Your task to perform on an android device: manage bookmarks in the chrome app Image 0: 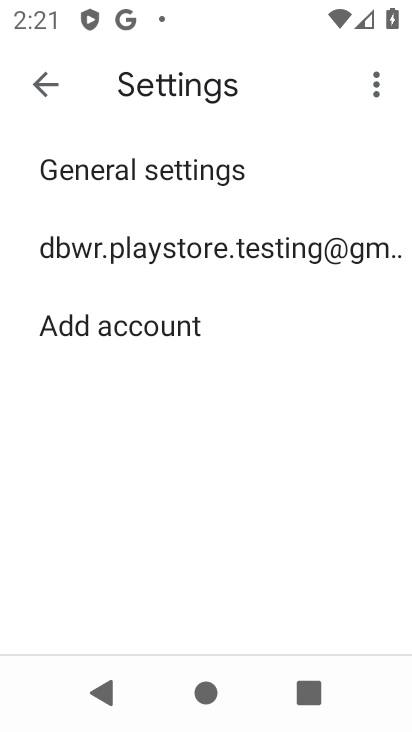
Step 0: press home button
Your task to perform on an android device: manage bookmarks in the chrome app Image 1: 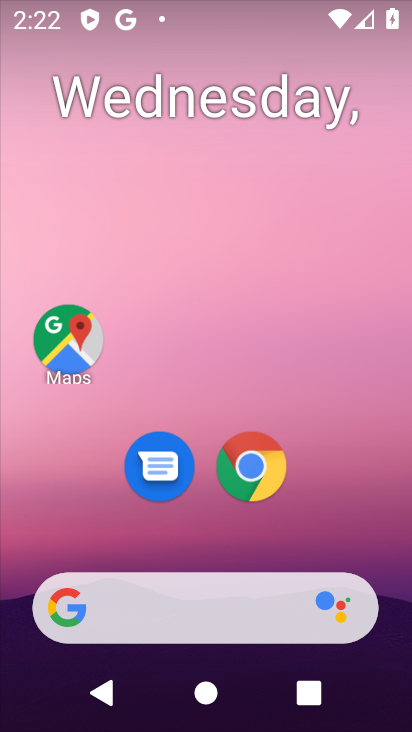
Step 1: drag from (396, 542) to (278, 100)
Your task to perform on an android device: manage bookmarks in the chrome app Image 2: 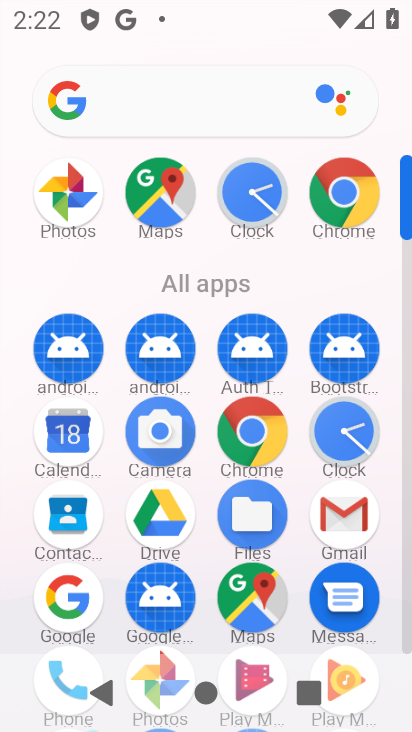
Step 2: click (355, 196)
Your task to perform on an android device: manage bookmarks in the chrome app Image 3: 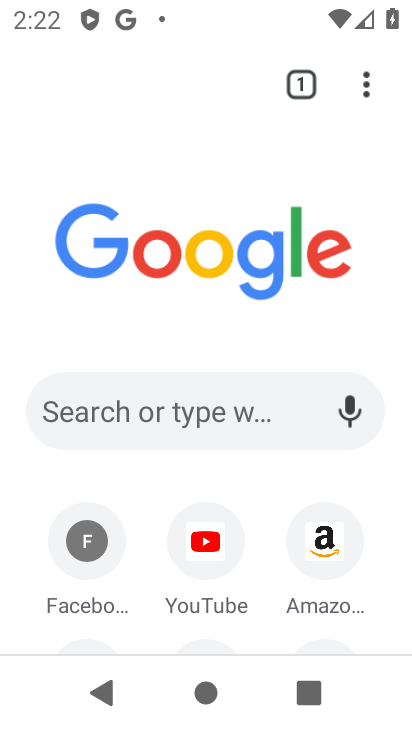
Step 3: click (360, 102)
Your task to perform on an android device: manage bookmarks in the chrome app Image 4: 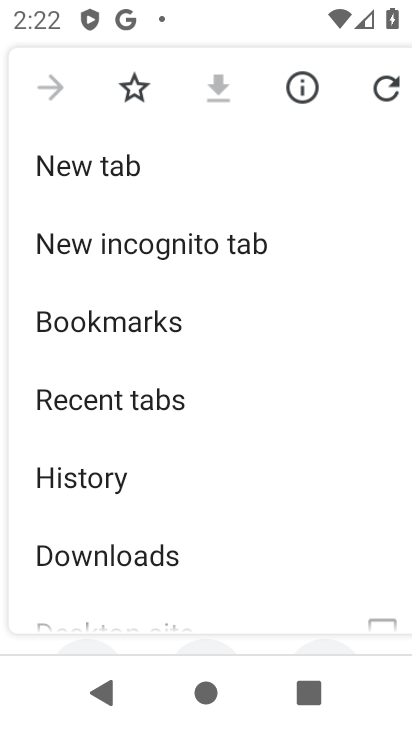
Step 4: click (251, 316)
Your task to perform on an android device: manage bookmarks in the chrome app Image 5: 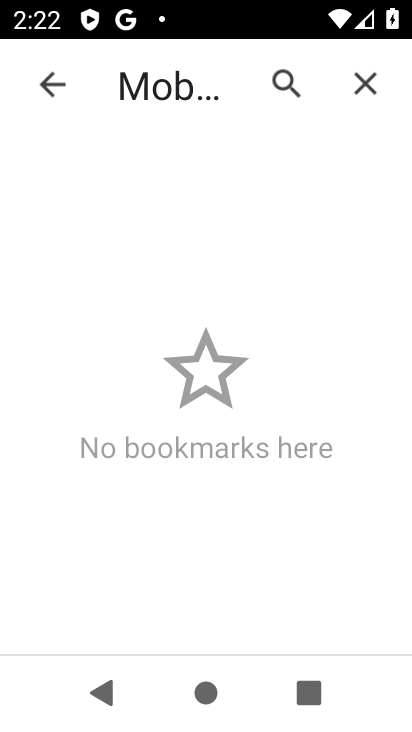
Step 5: task complete